Your task to perform on an android device: Go to Android settings Image 0: 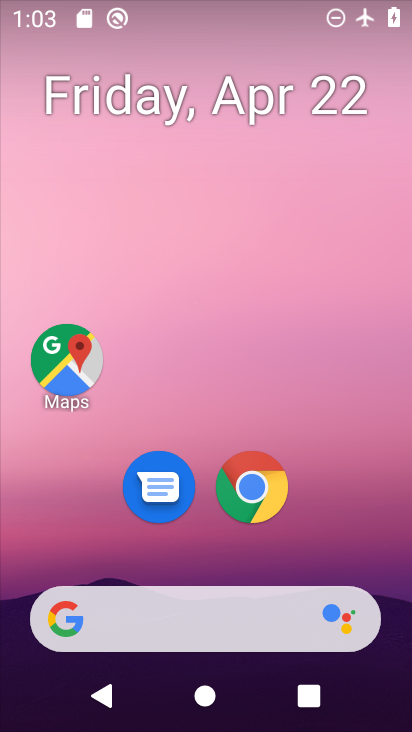
Step 0: drag from (352, 424) to (357, 136)
Your task to perform on an android device: Go to Android settings Image 1: 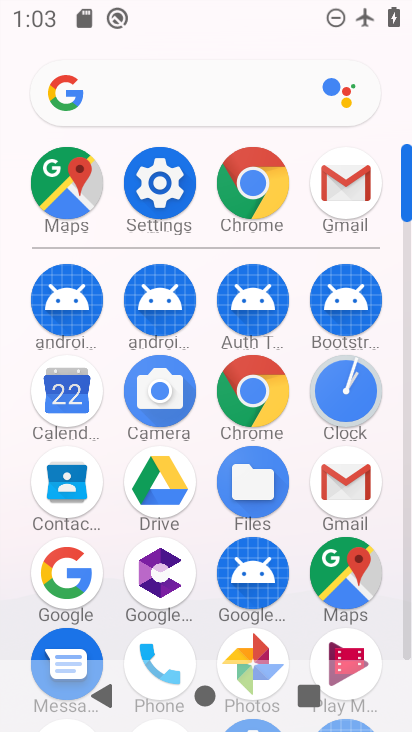
Step 1: click (155, 176)
Your task to perform on an android device: Go to Android settings Image 2: 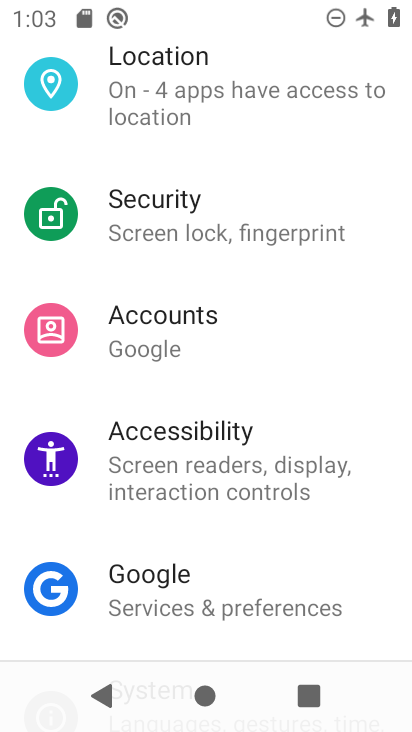
Step 2: drag from (218, 621) to (277, 79)
Your task to perform on an android device: Go to Android settings Image 3: 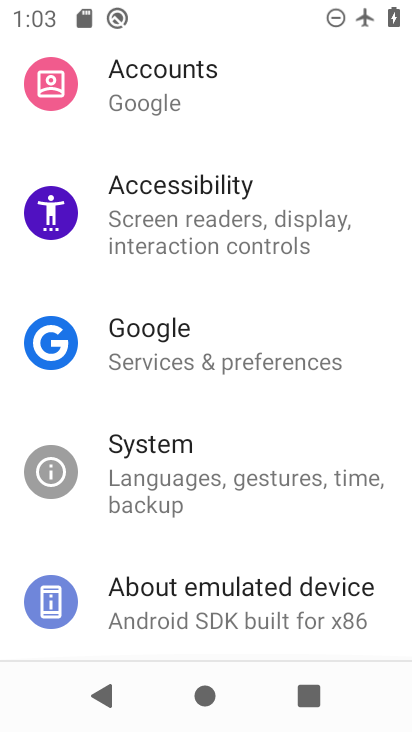
Step 3: click (226, 606)
Your task to perform on an android device: Go to Android settings Image 4: 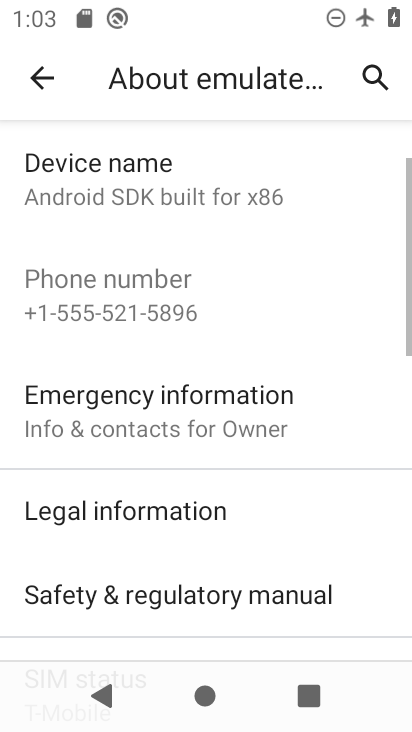
Step 4: drag from (238, 580) to (276, 82)
Your task to perform on an android device: Go to Android settings Image 5: 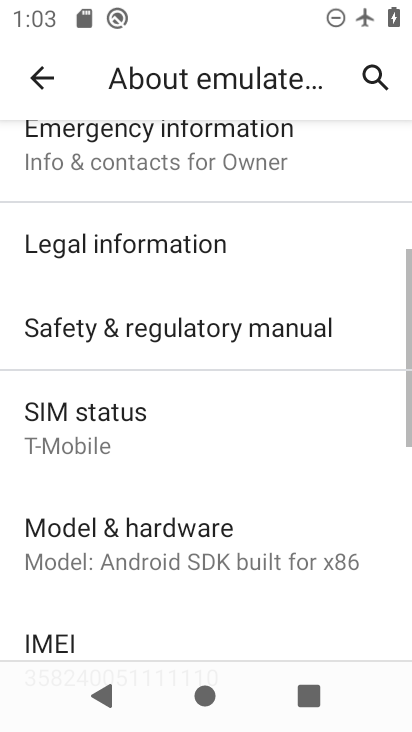
Step 5: drag from (268, 584) to (307, 66)
Your task to perform on an android device: Go to Android settings Image 6: 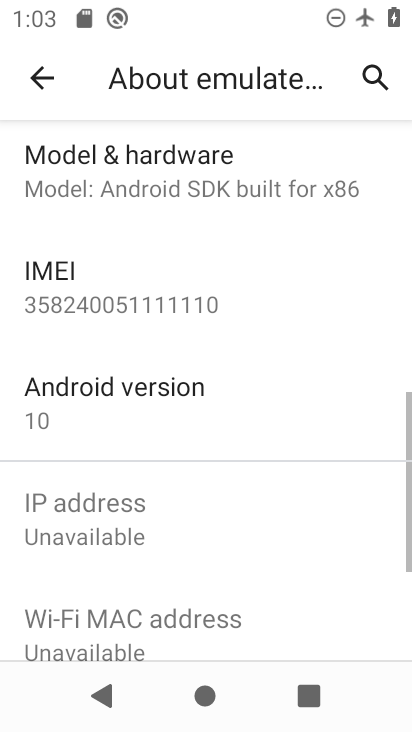
Step 6: click (198, 403)
Your task to perform on an android device: Go to Android settings Image 7: 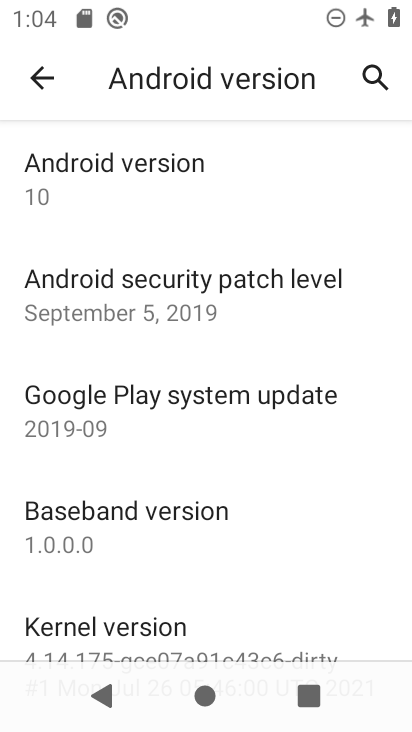
Step 7: task complete